Your task to perform on an android device: Go to wifi settings Image 0: 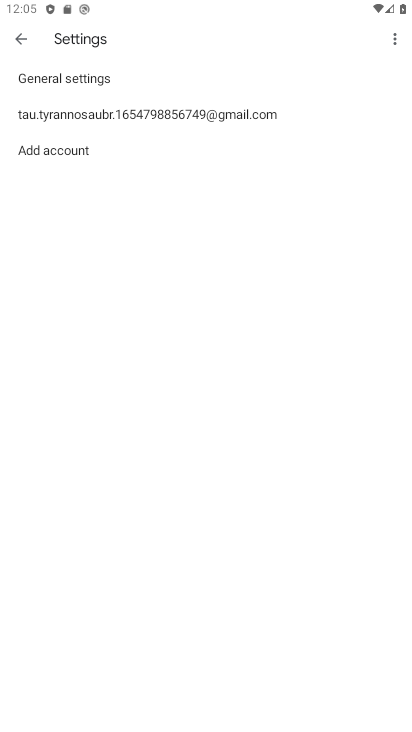
Step 0: press home button
Your task to perform on an android device: Go to wifi settings Image 1: 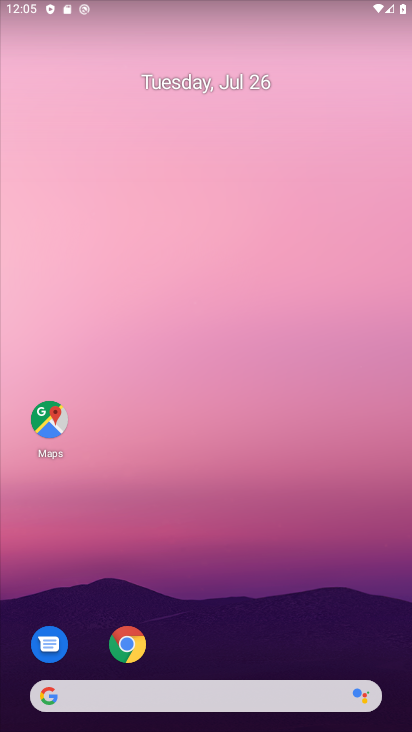
Step 1: drag from (249, 637) to (215, 70)
Your task to perform on an android device: Go to wifi settings Image 2: 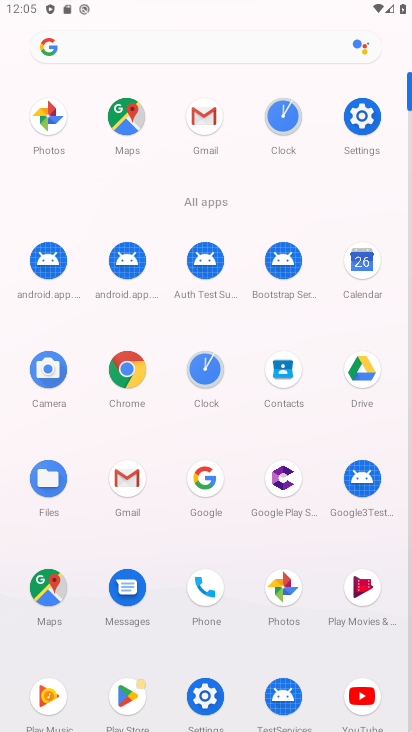
Step 2: click (358, 127)
Your task to perform on an android device: Go to wifi settings Image 3: 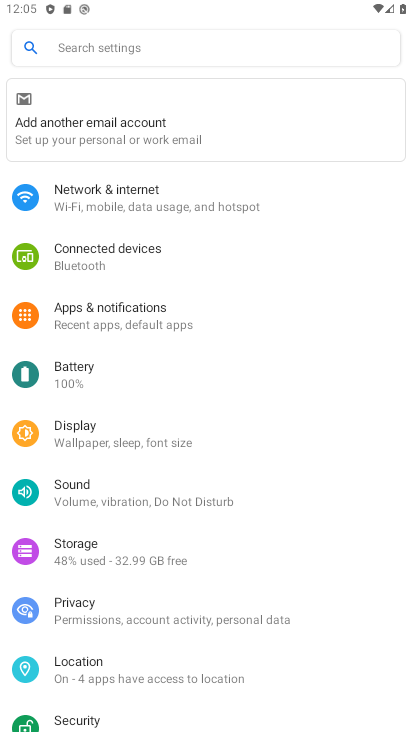
Step 3: click (154, 194)
Your task to perform on an android device: Go to wifi settings Image 4: 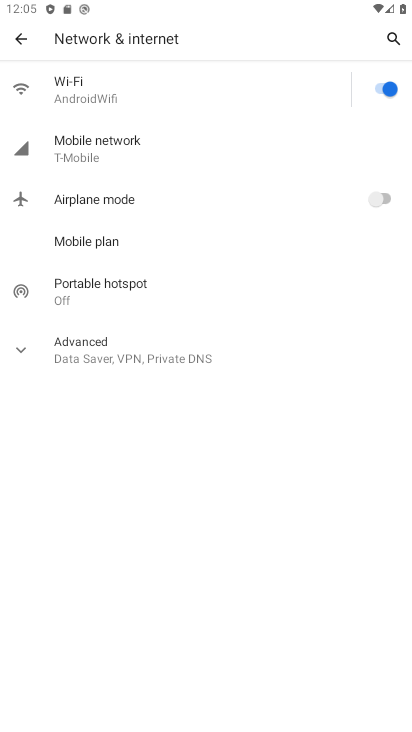
Step 4: click (61, 88)
Your task to perform on an android device: Go to wifi settings Image 5: 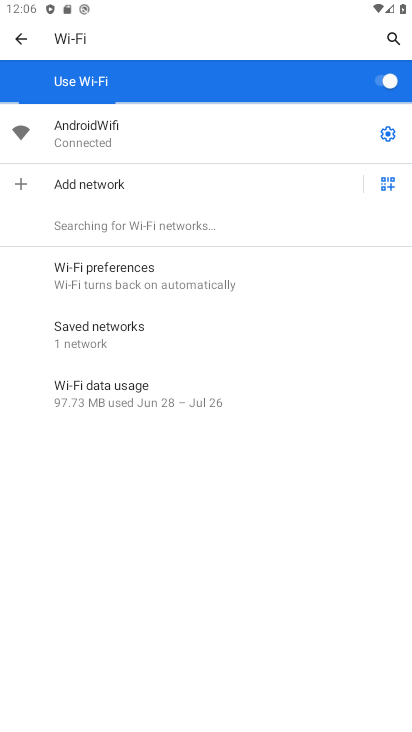
Step 5: task complete